Your task to perform on an android device: Turn on the flashlight Image 0: 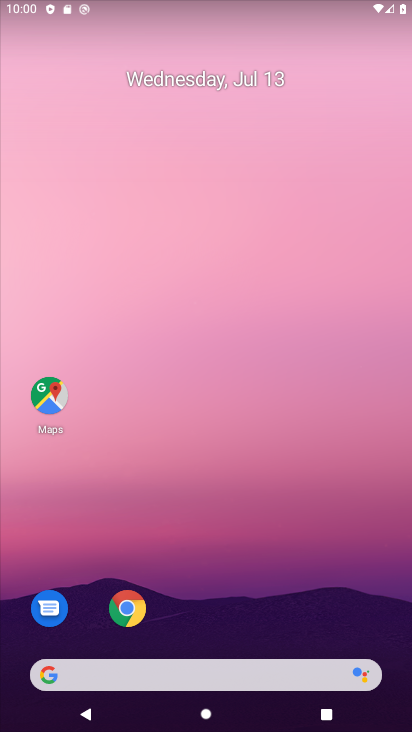
Step 0: drag from (255, 76) to (36, 476)
Your task to perform on an android device: Turn on the flashlight Image 1: 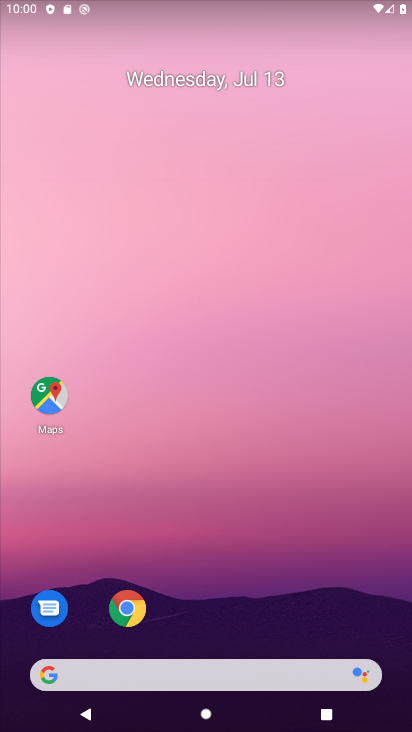
Step 1: task complete